Your task to perform on an android device: open app "Lyft - Rideshare, Bikes, Scooters & Transit" (install if not already installed), go to login, and select forgot password Image 0: 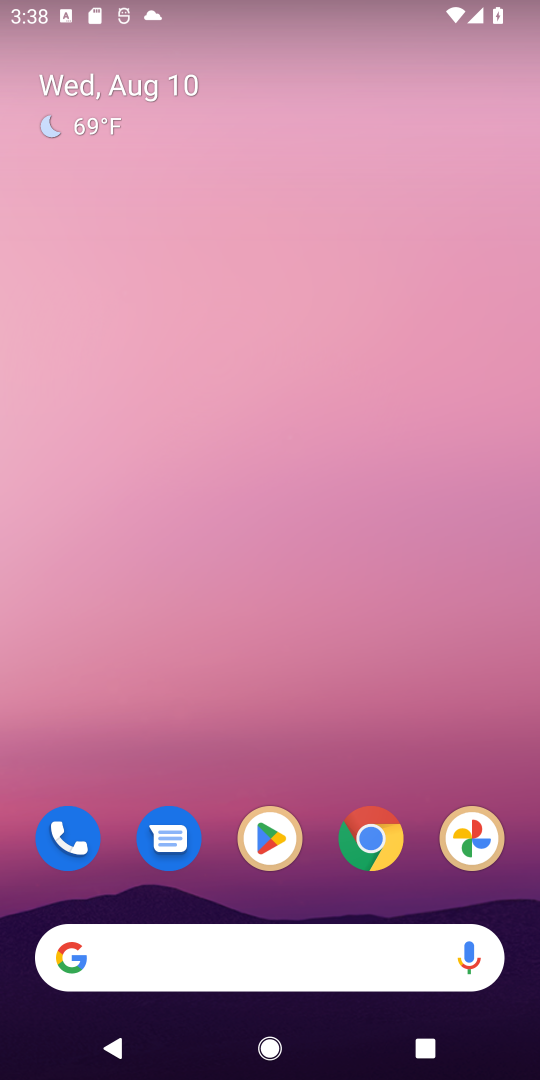
Step 0: click (268, 844)
Your task to perform on an android device: open app "Lyft - Rideshare, Bikes, Scooters & Transit" (install if not already installed), go to login, and select forgot password Image 1: 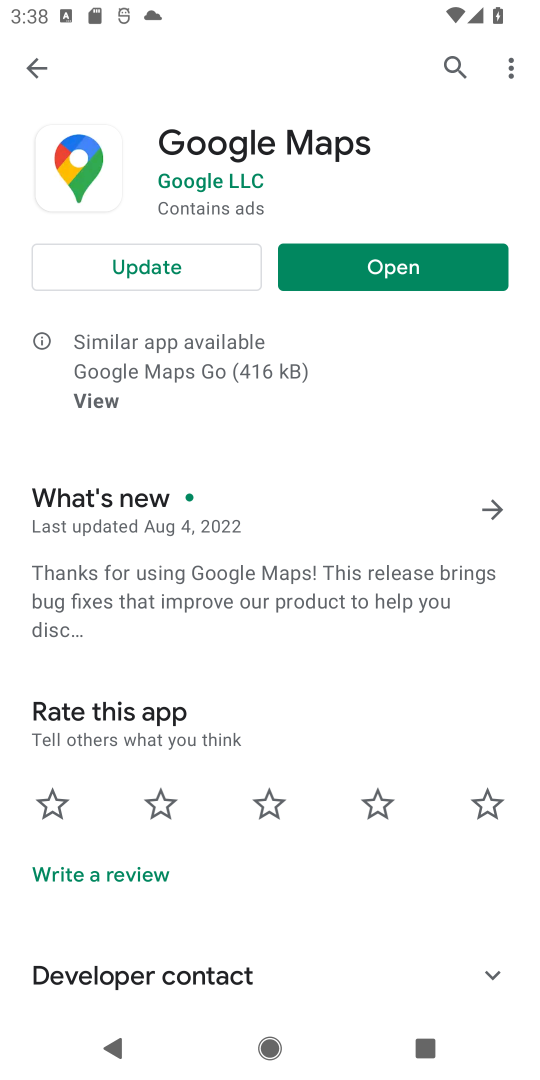
Step 1: click (447, 68)
Your task to perform on an android device: open app "Lyft - Rideshare, Bikes, Scooters & Transit" (install if not already installed), go to login, and select forgot password Image 2: 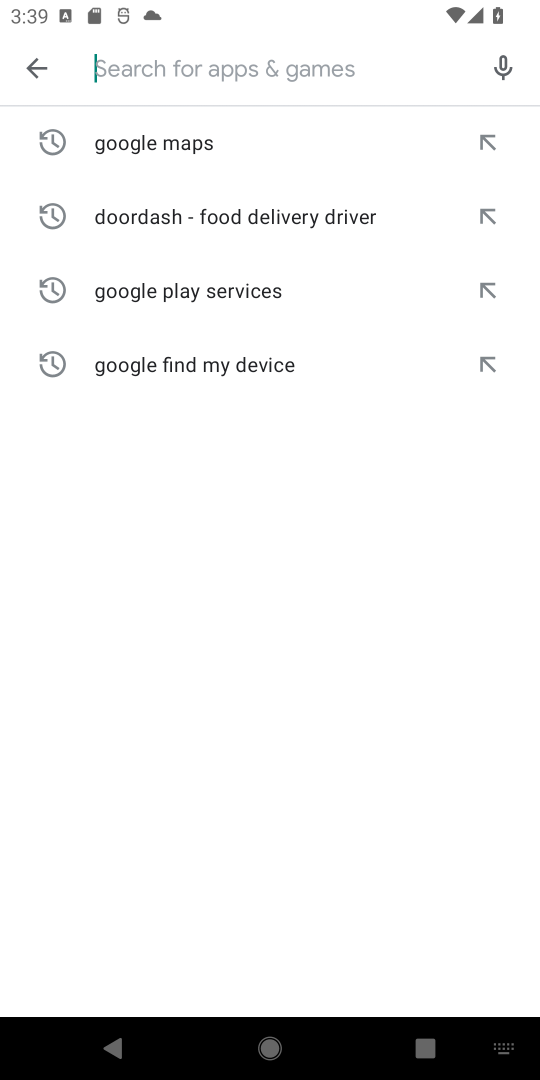
Step 2: type "Lyft - Rideshare, Bikes, Scooters & Transit"
Your task to perform on an android device: open app "Lyft - Rideshare, Bikes, Scooters & Transit" (install if not already installed), go to login, and select forgot password Image 3: 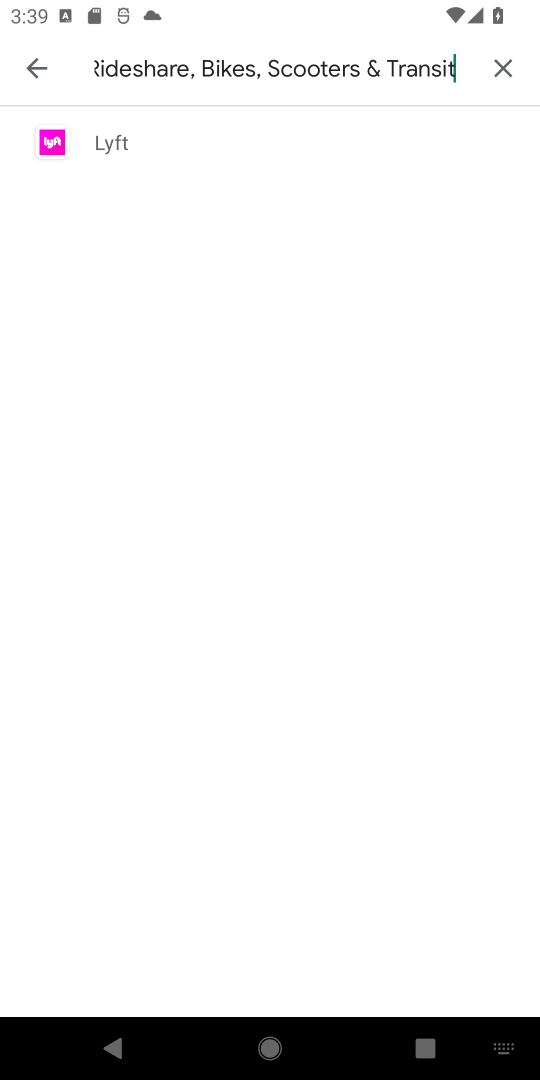
Step 3: click (124, 150)
Your task to perform on an android device: open app "Lyft - Rideshare, Bikes, Scooters & Transit" (install if not already installed), go to login, and select forgot password Image 4: 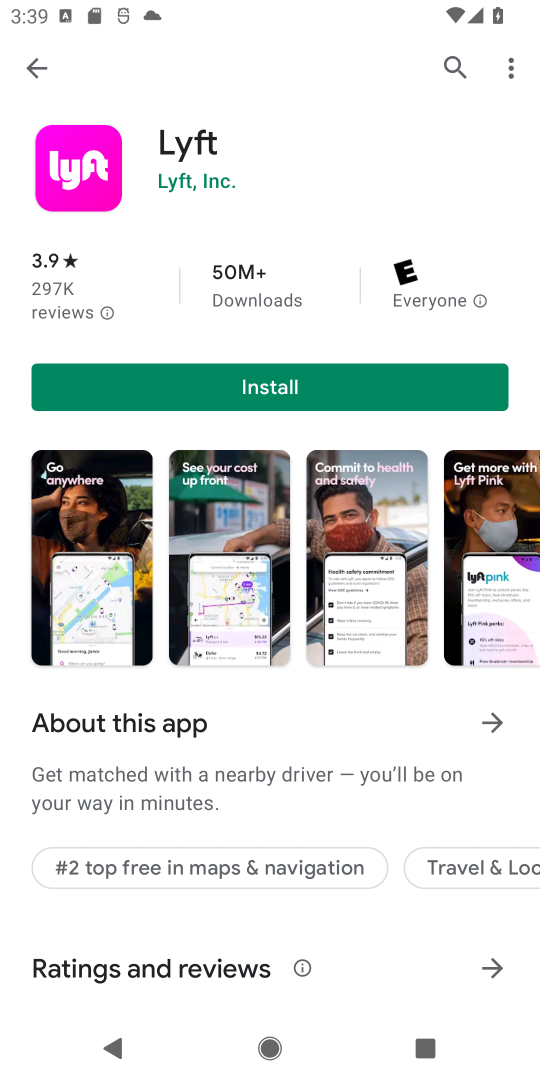
Step 4: click (298, 377)
Your task to perform on an android device: open app "Lyft - Rideshare, Bikes, Scooters & Transit" (install if not already installed), go to login, and select forgot password Image 5: 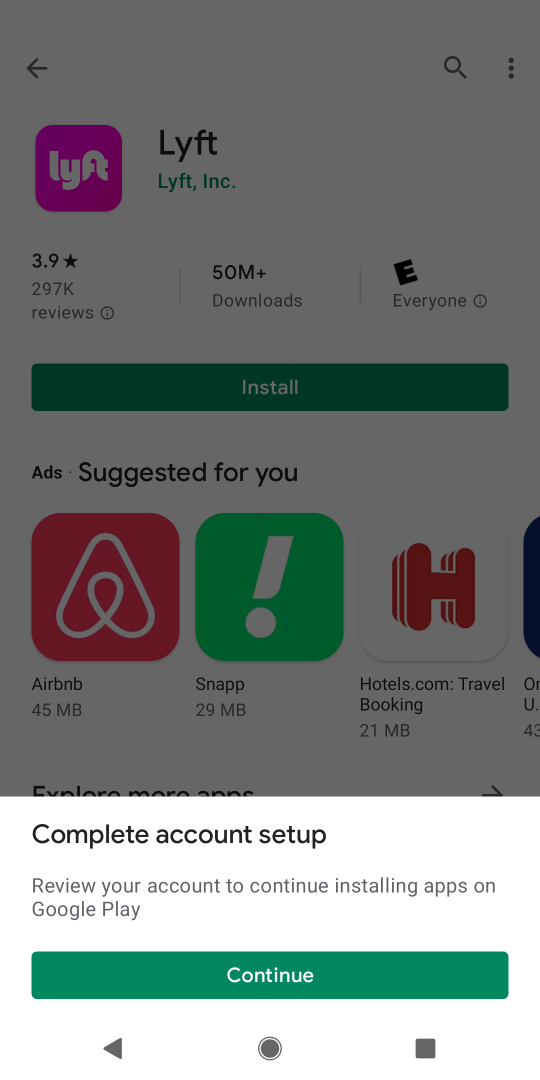
Step 5: click (284, 977)
Your task to perform on an android device: open app "Lyft - Rideshare, Bikes, Scooters & Transit" (install if not already installed), go to login, and select forgot password Image 6: 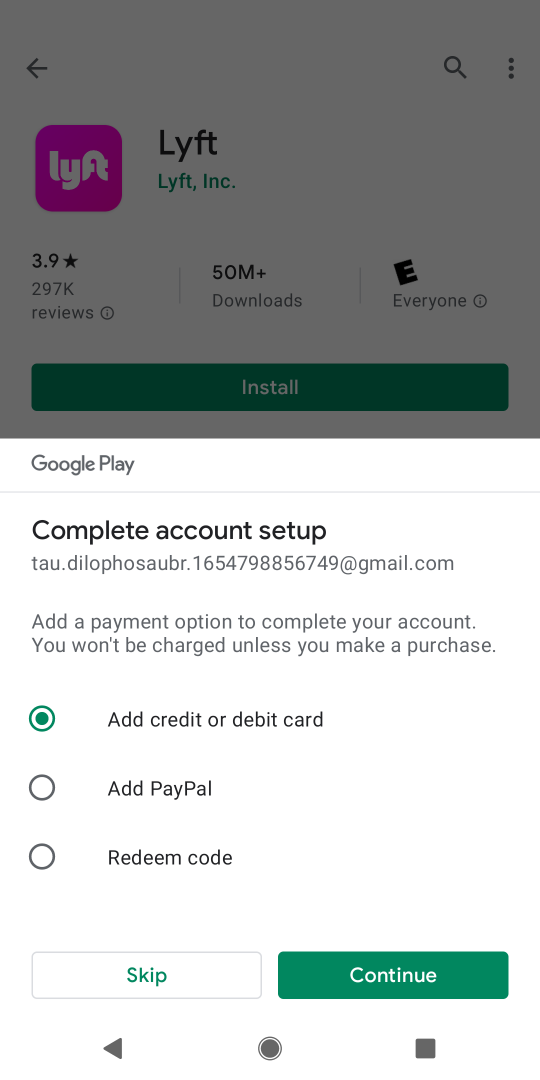
Step 6: click (191, 971)
Your task to perform on an android device: open app "Lyft - Rideshare, Bikes, Scooters & Transit" (install if not already installed), go to login, and select forgot password Image 7: 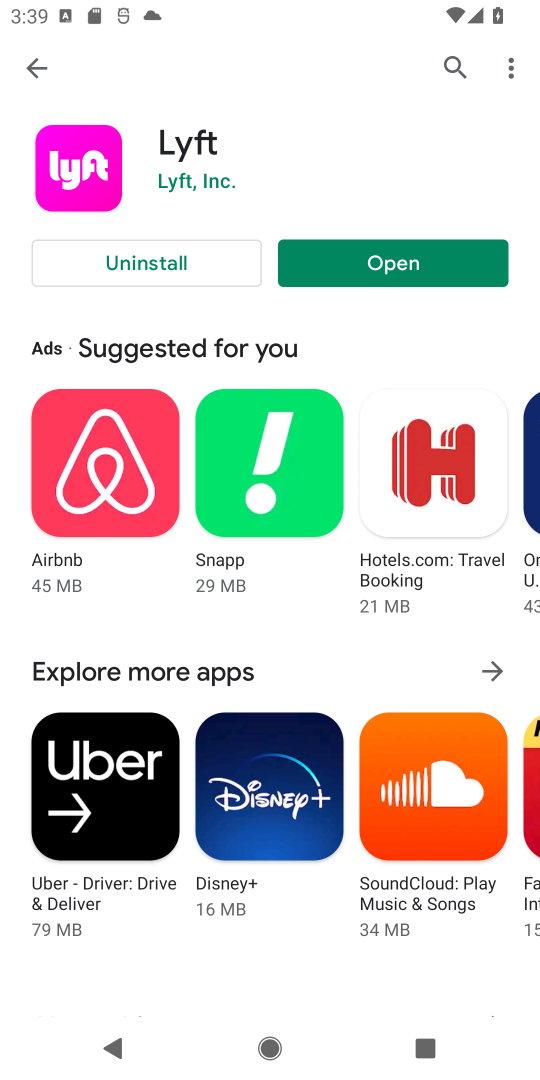
Step 7: click (432, 257)
Your task to perform on an android device: open app "Lyft - Rideshare, Bikes, Scooters & Transit" (install if not already installed), go to login, and select forgot password Image 8: 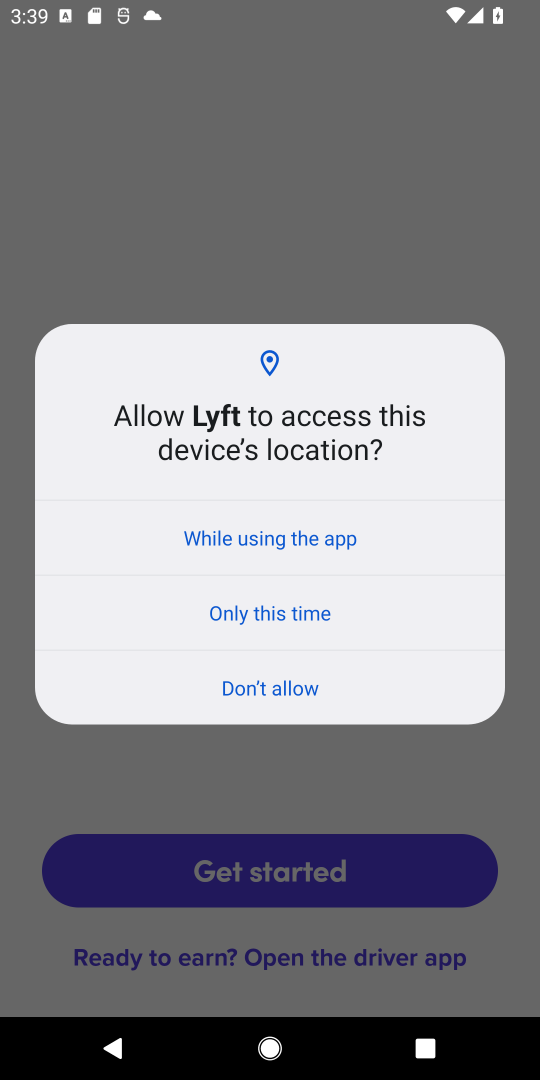
Step 8: click (316, 619)
Your task to perform on an android device: open app "Lyft - Rideshare, Bikes, Scooters & Transit" (install if not already installed), go to login, and select forgot password Image 9: 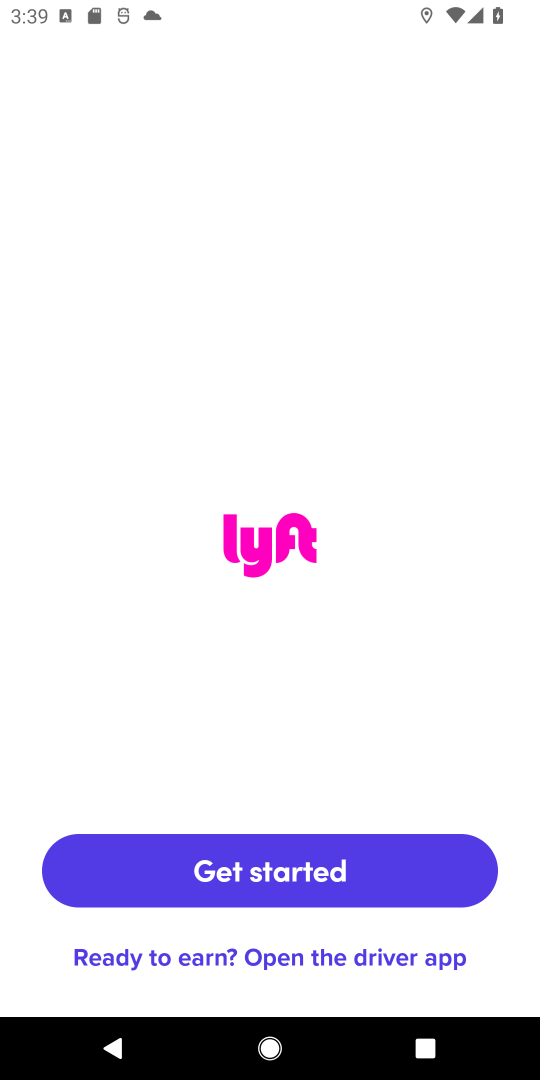
Step 9: click (304, 876)
Your task to perform on an android device: open app "Lyft - Rideshare, Bikes, Scooters & Transit" (install if not already installed), go to login, and select forgot password Image 10: 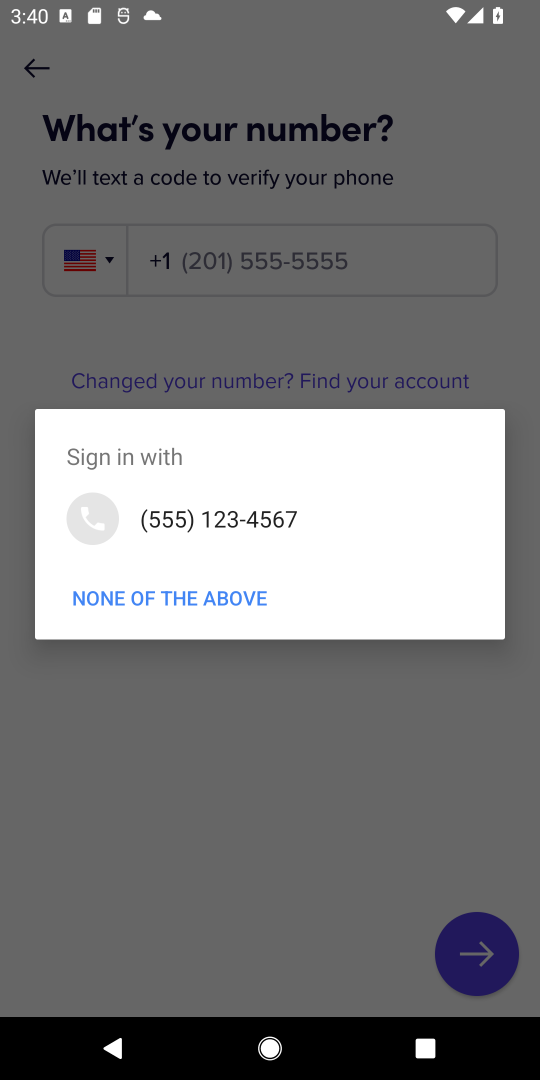
Step 10: click (261, 529)
Your task to perform on an android device: open app "Lyft - Rideshare, Bikes, Scooters & Transit" (install if not already installed), go to login, and select forgot password Image 11: 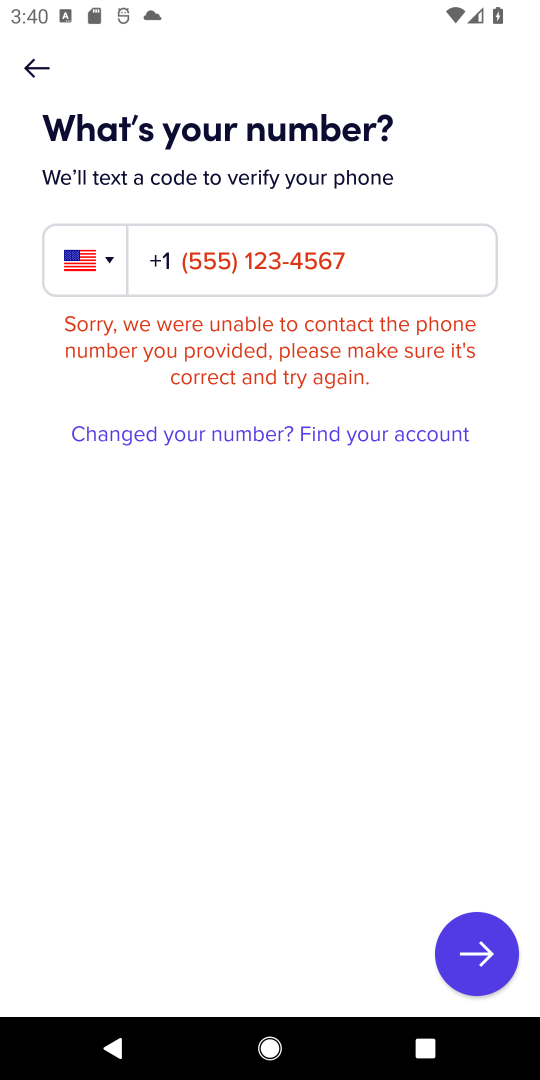
Step 11: click (486, 953)
Your task to perform on an android device: open app "Lyft - Rideshare, Bikes, Scooters & Transit" (install if not already installed), go to login, and select forgot password Image 12: 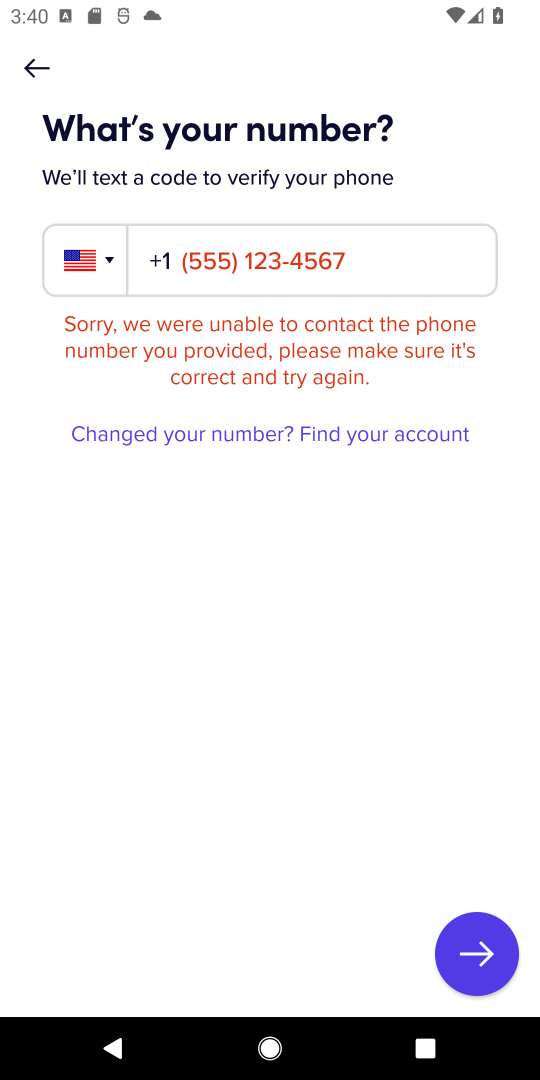
Step 12: task complete